Your task to perform on an android device: Show the shopping cart on amazon. Image 0: 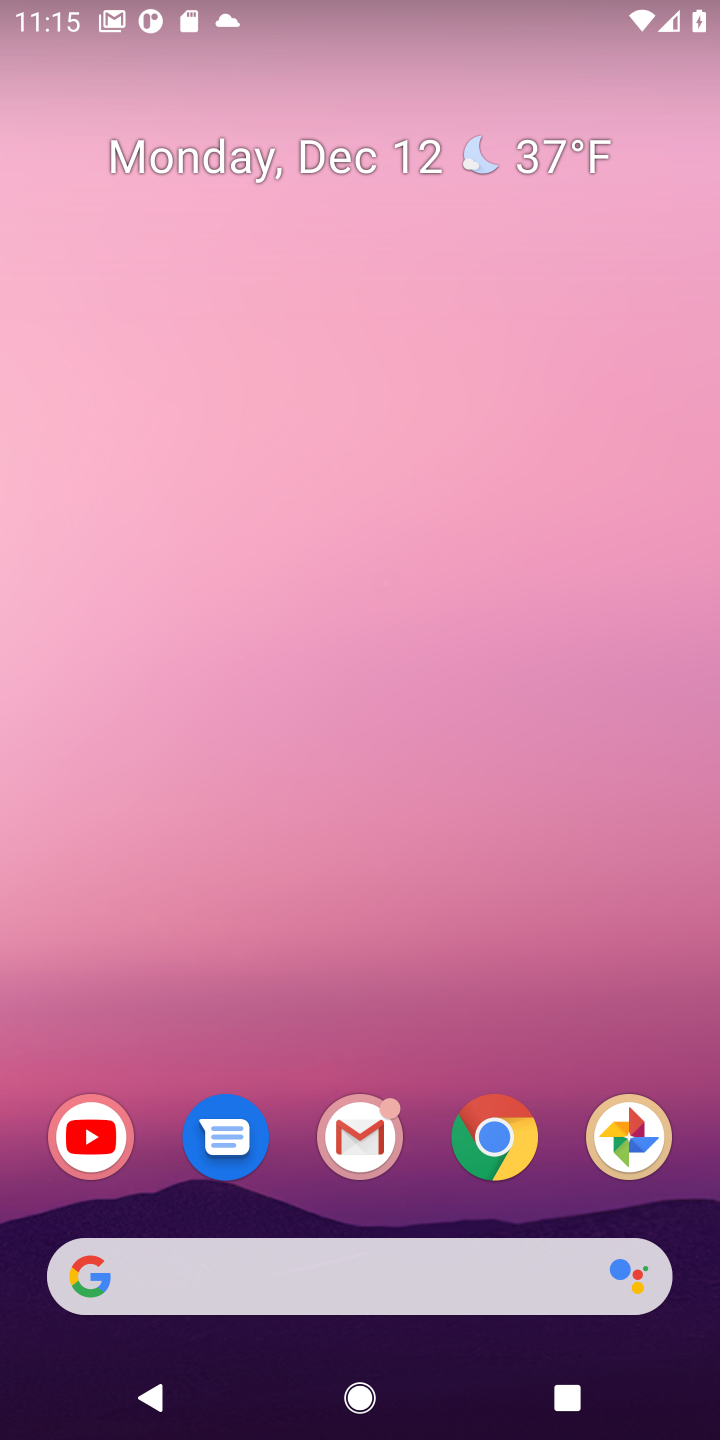
Step 0: click (416, 1272)
Your task to perform on an android device: Show the shopping cart on amazon. Image 1: 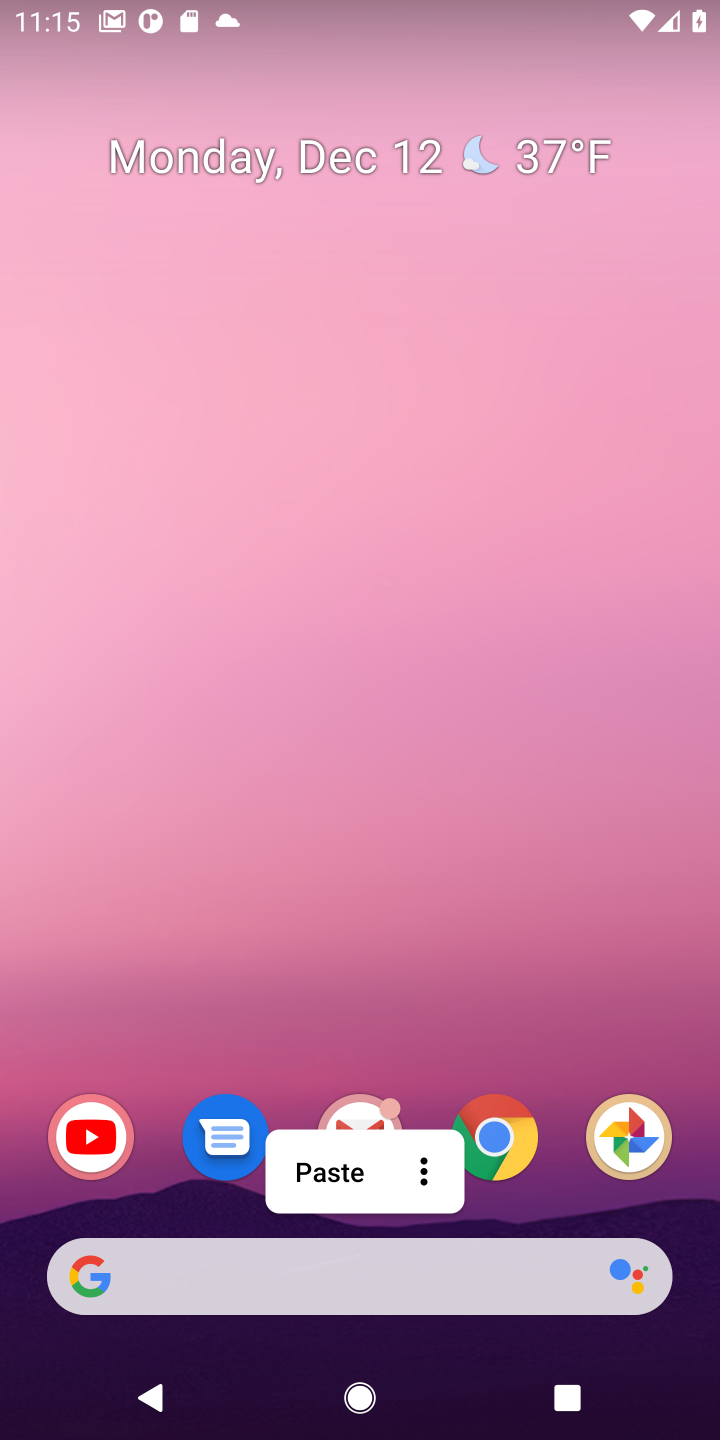
Step 1: click (416, 1272)
Your task to perform on an android device: Show the shopping cart on amazon. Image 2: 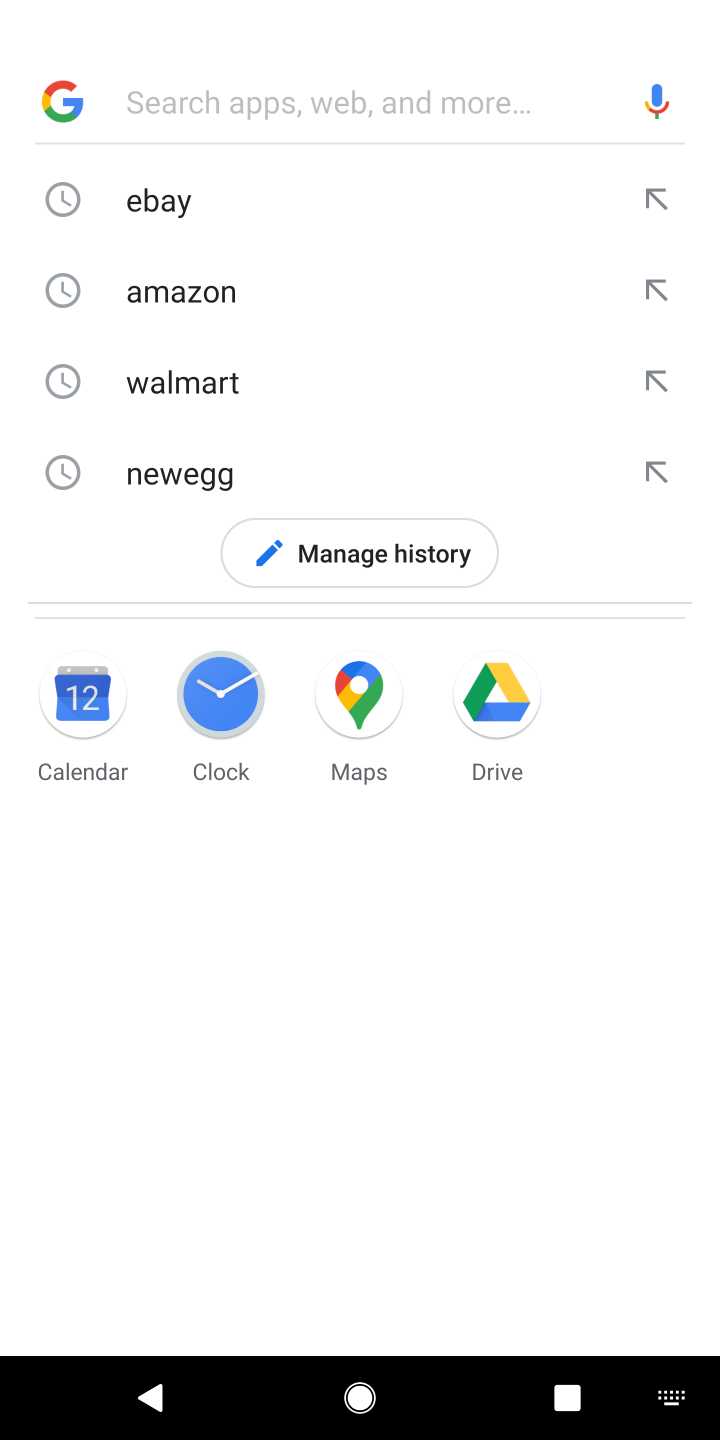
Step 2: click (181, 302)
Your task to perform on an android device: Show the shopping cart on amazon. Image 3: 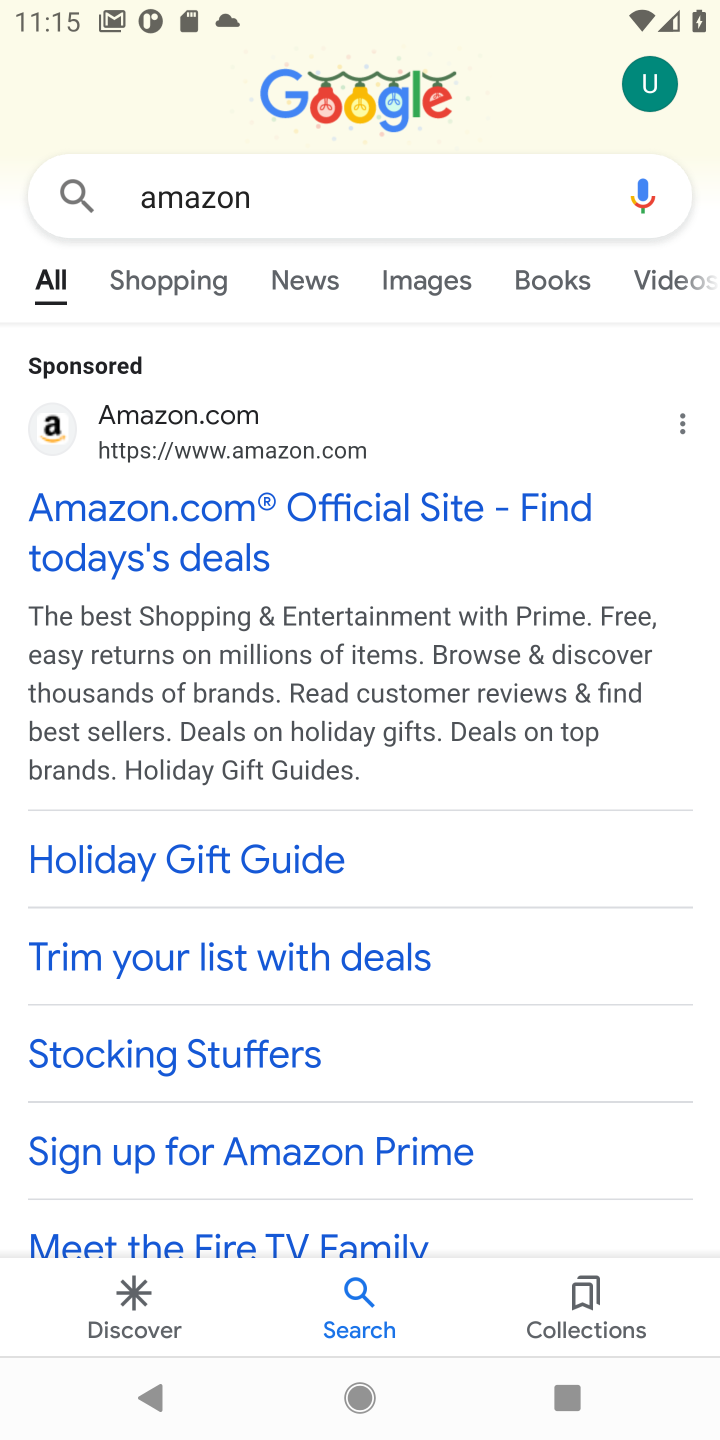
Step 3: click (205, 587)
Your task to perform on an android device: Show the shopping cart on amazon. Image 4: 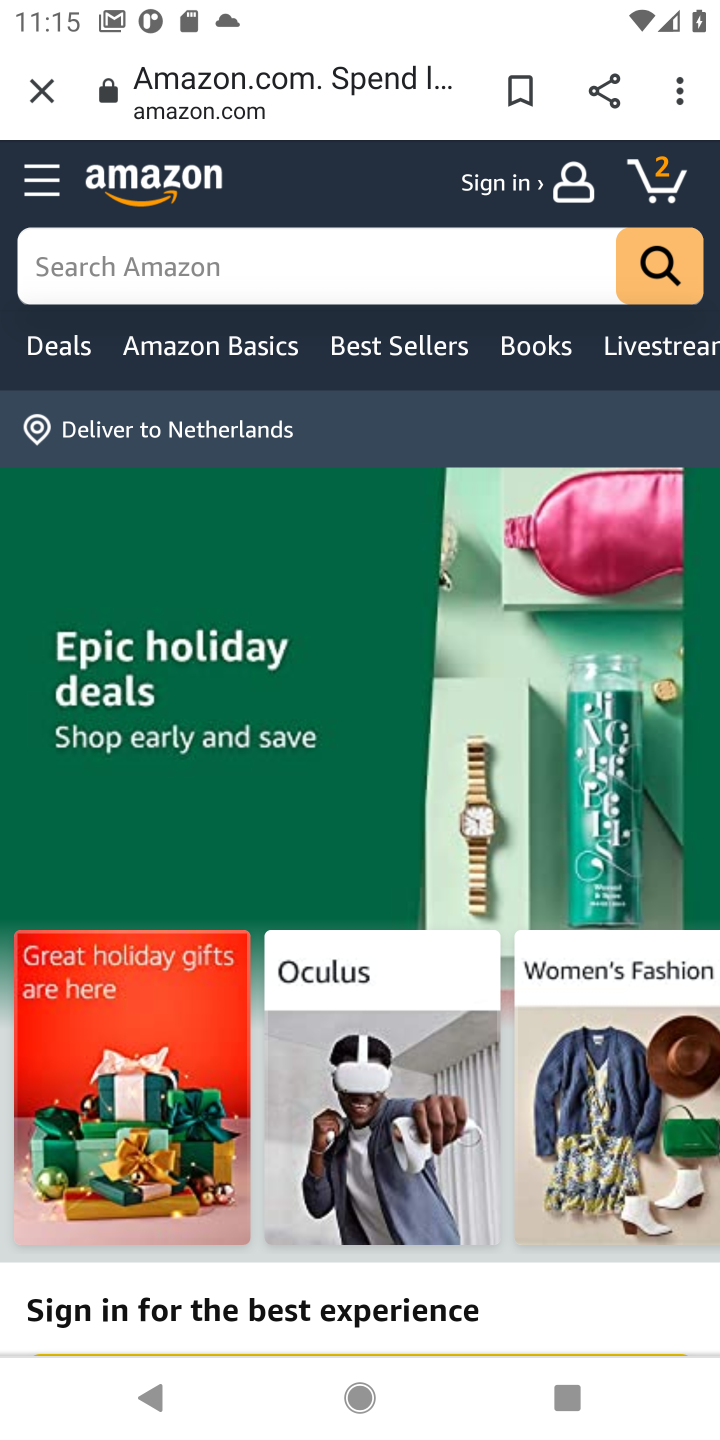
Step 4: click (302, 290)
Your task to perform on an android device: Show the shopping cart on amazon. Image 5: 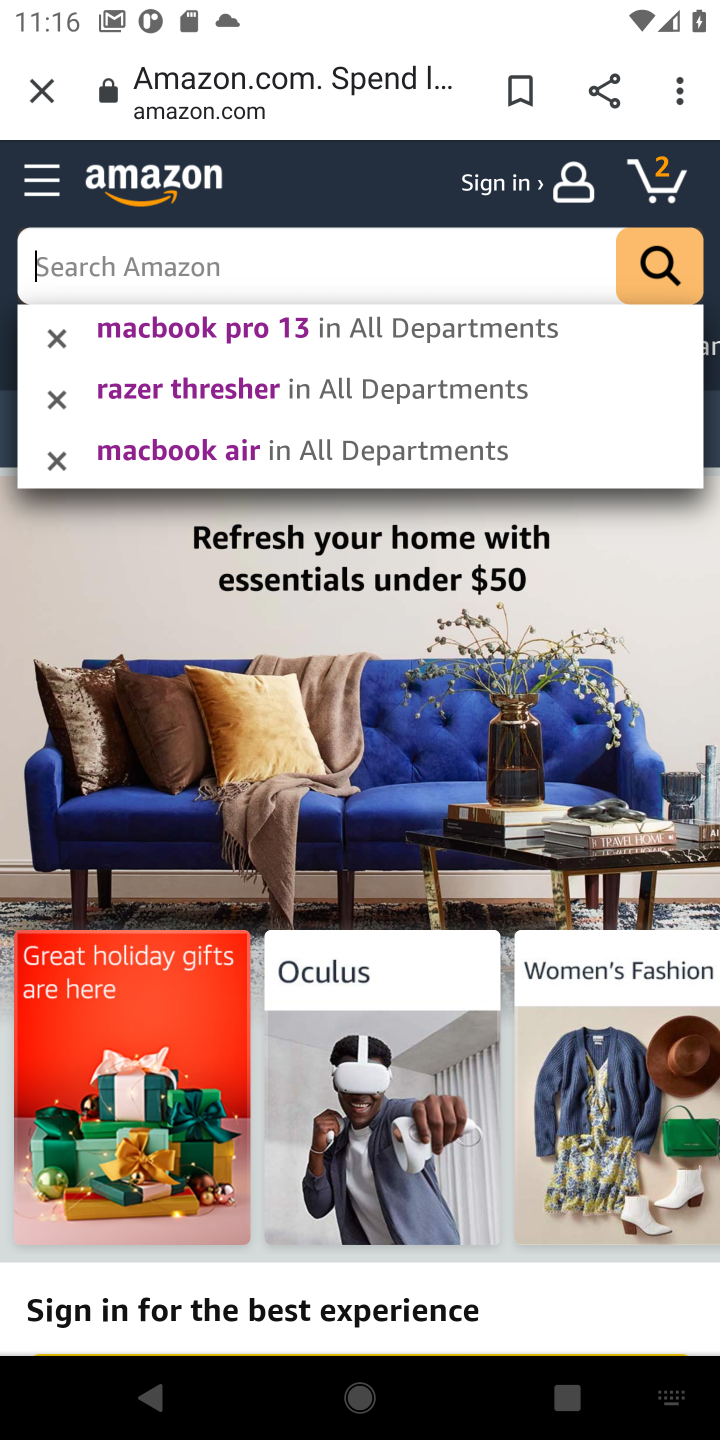
Step 5: click (653, 186)
Your task to perform on an android device: Show the shopping cart on amazon. Image 6: 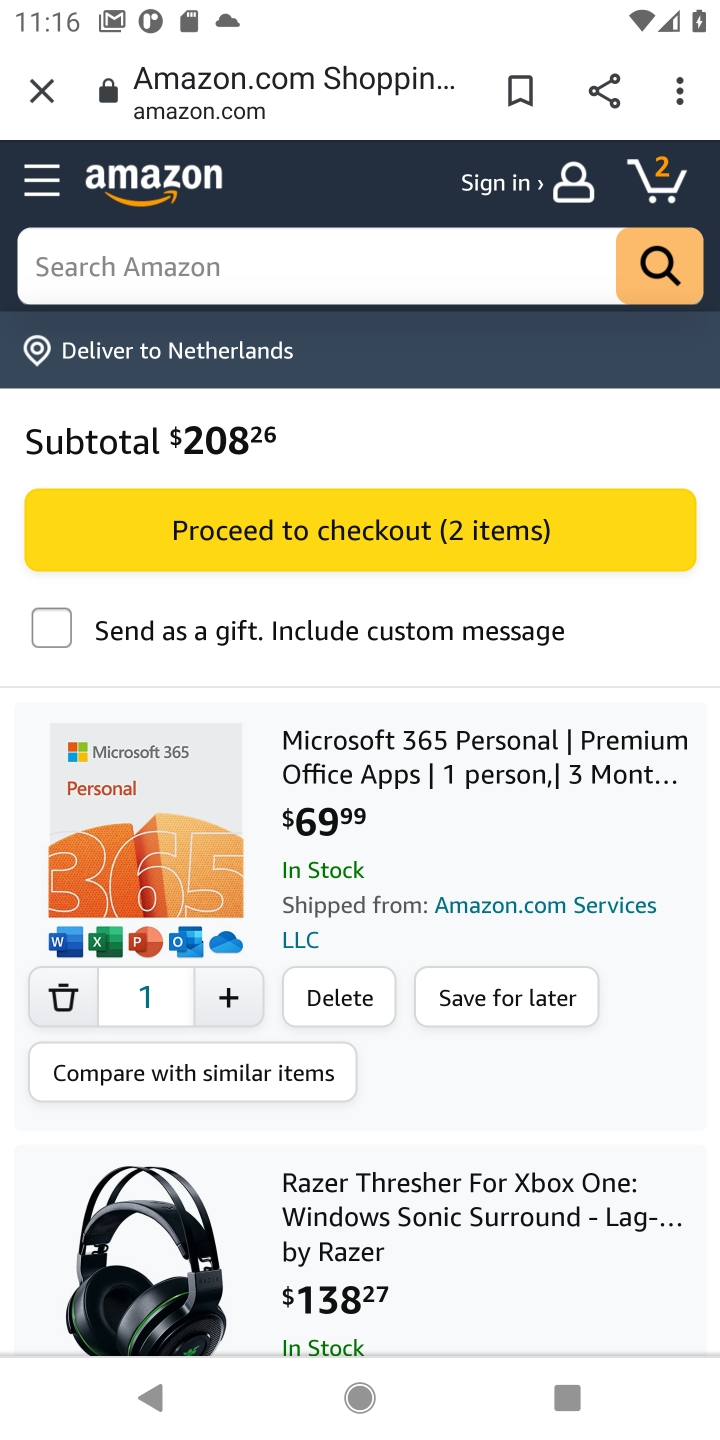
Step 6: task complete